Your task to perform on an android device: Open network settings Image 0: 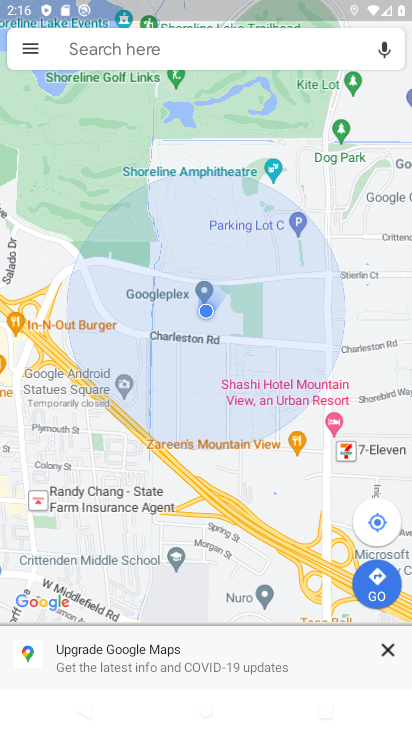
Step 0: press home button
Your task to perform on an android device: Open network settings Image 1: 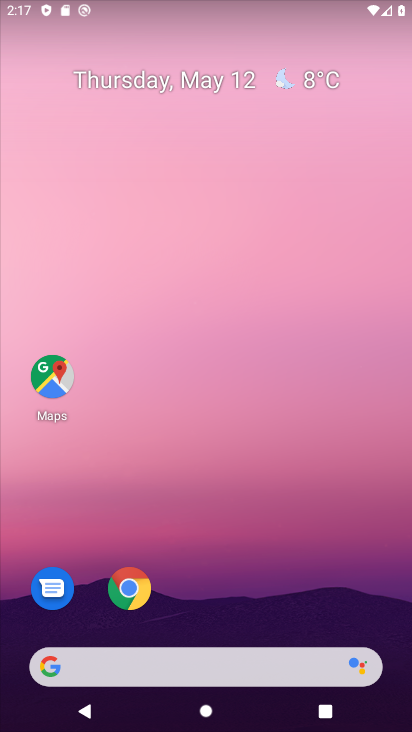
Step 1: drag from (265, 618) to (241, 113)
Your task to perform on an android device: Open network settings Image 2: 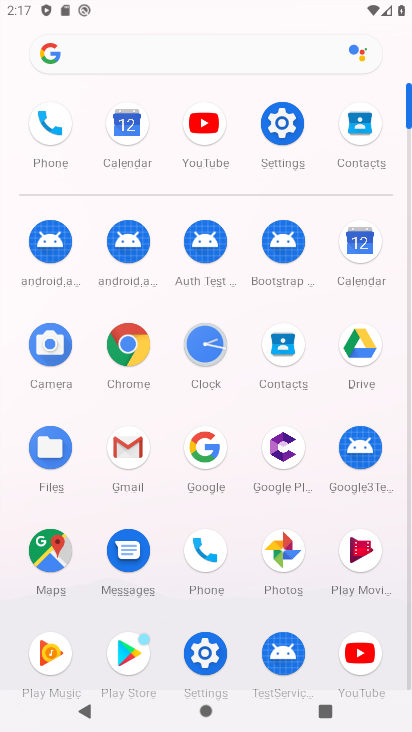
Step 2: click (268, 147)
Your task to perform on an android device: Open network settings Image 3: 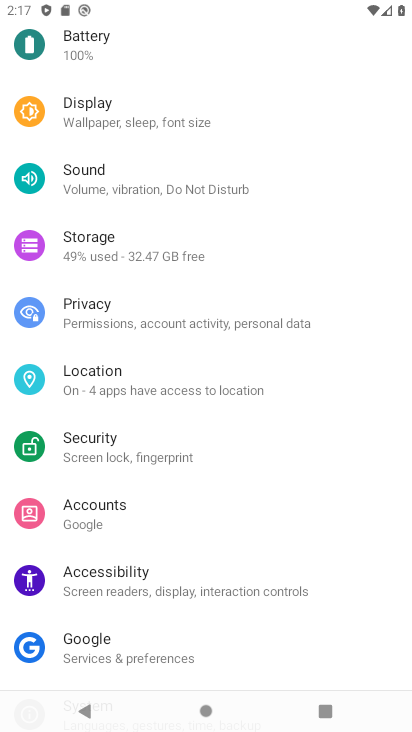
Step 3: drag from (247, 135) to (222, 535)
Your task to perform on an android device: Open network settings Image 4: 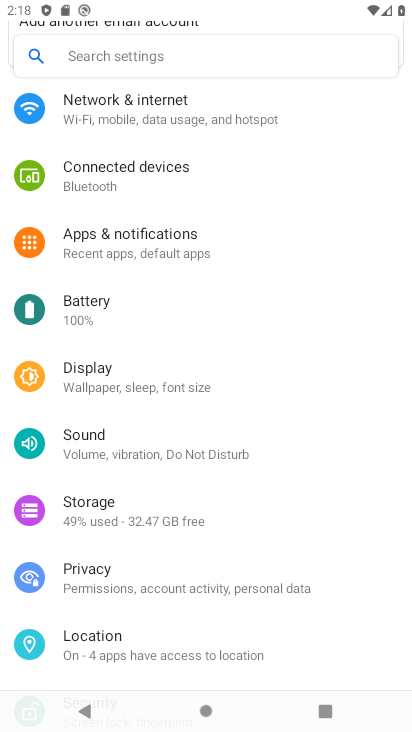
Step 4: click (261, 125)
Your task to perform on an android device: Open network settings Image 5: 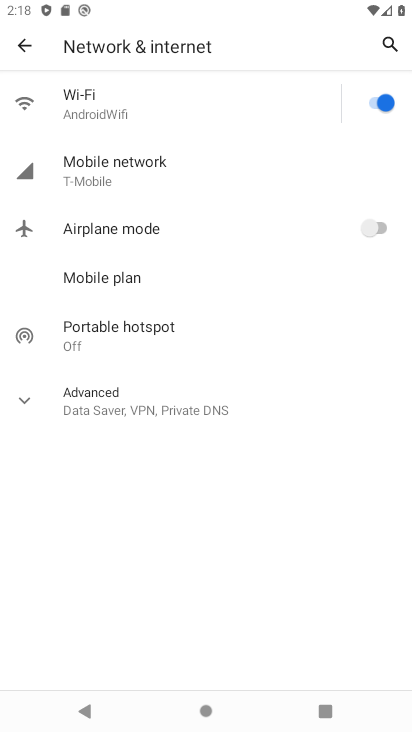
Step 5: task complete